Your task to perform on an android device: turn on the 24-hour format for clock Image 0: 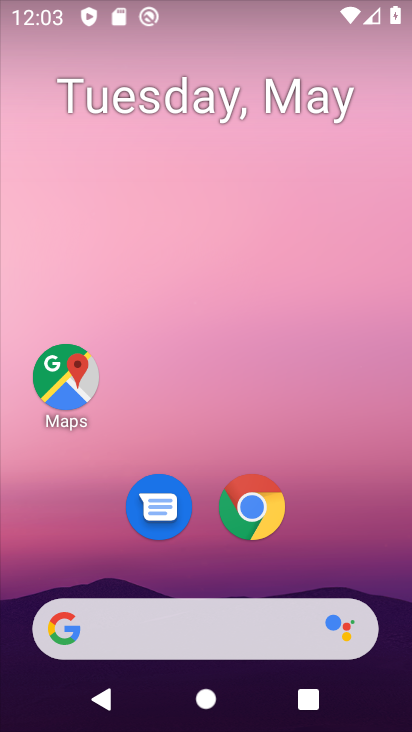
Step 0: drag from (196, 587) to (170, 116)
Your task to perform on an android device: turn on the 24-hour format for clock Image 1: 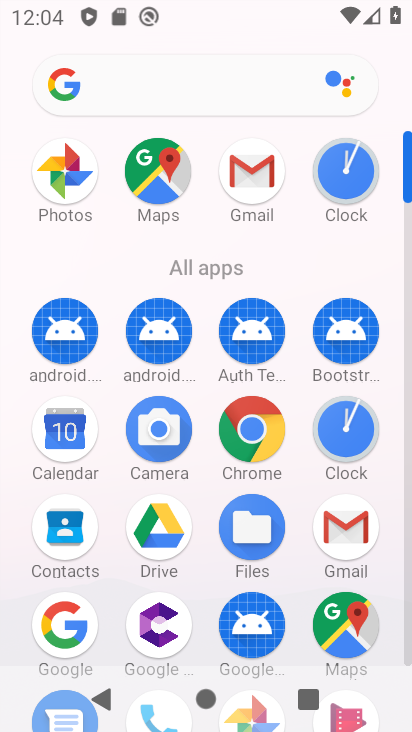
Step 1: drag from (115, 639) to (121, 333)
Your task to perform on an android device: turn on the 24-hour format for clock Image 2: 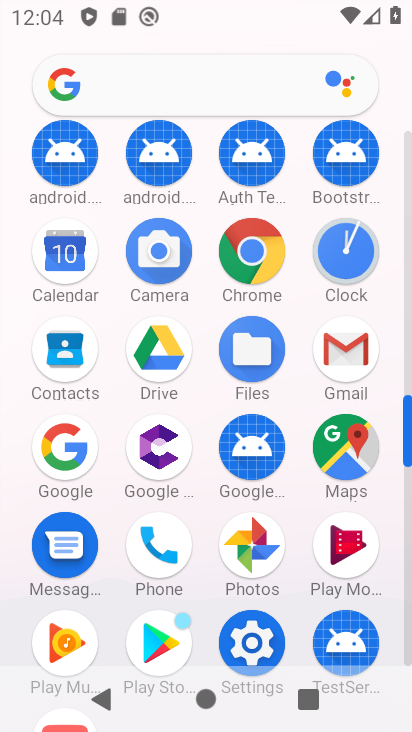
Step 2: click (249, 650)
Your task to perform on an android device: turn on the 24-hour format for clock Image 3: 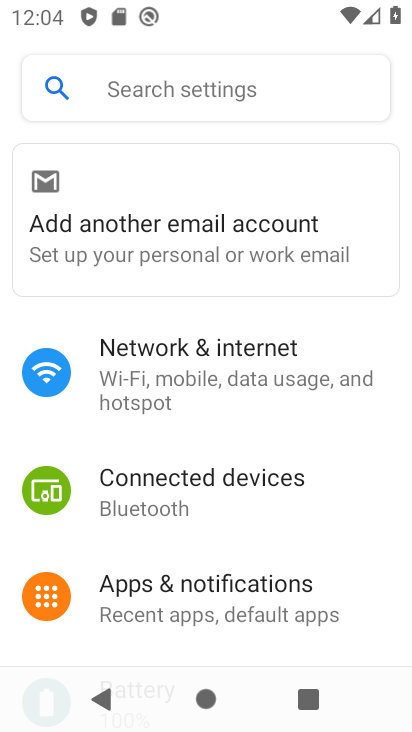
Step 3: press home button
Your task to perform on an android device: turn on the 24-hour format for clock Image 4: 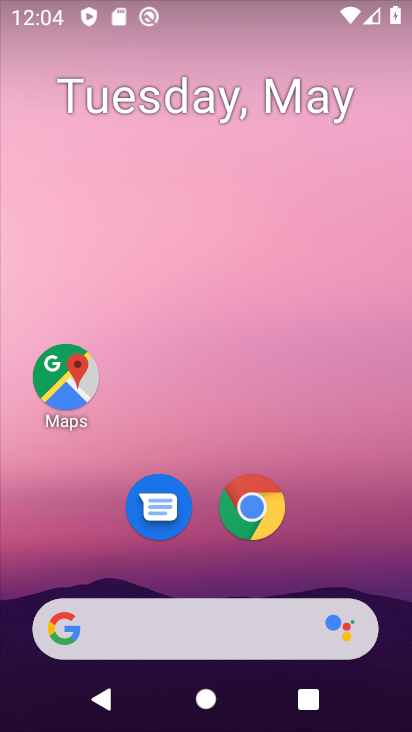
Step 4: drag from (174, 586) to (174, 286)
Your task to perform on an android device: turn on the 24-hour format for clock Image 5: 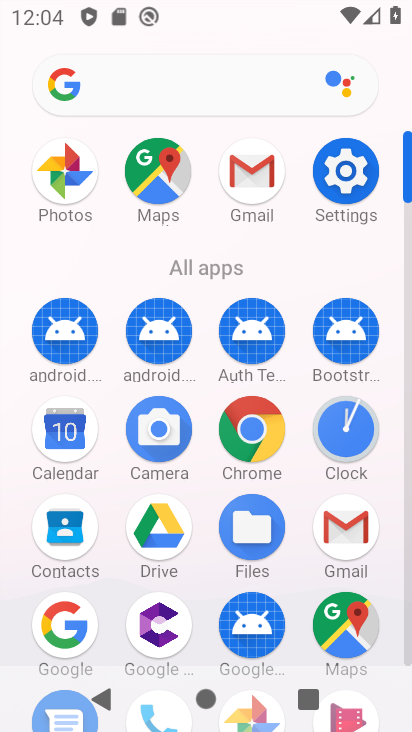
Step 5: click (346, 436)
Your task to perform on an android device: turn on the 24-hour format for clock Image 6: 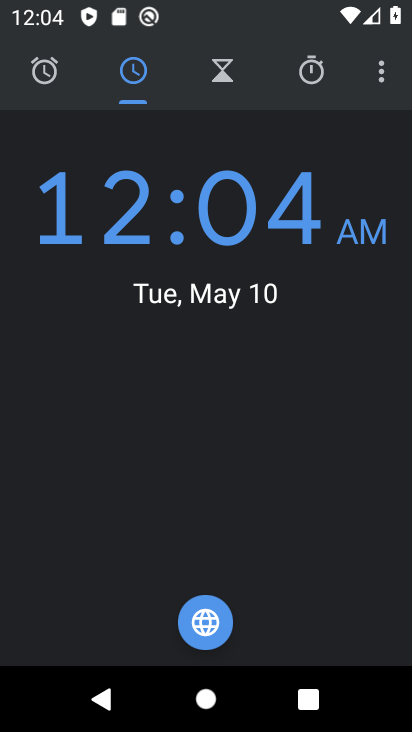
Step 6: click (375, 69)
Your task to perform on an android device: turn on the 24-hour format for clock Image 7: 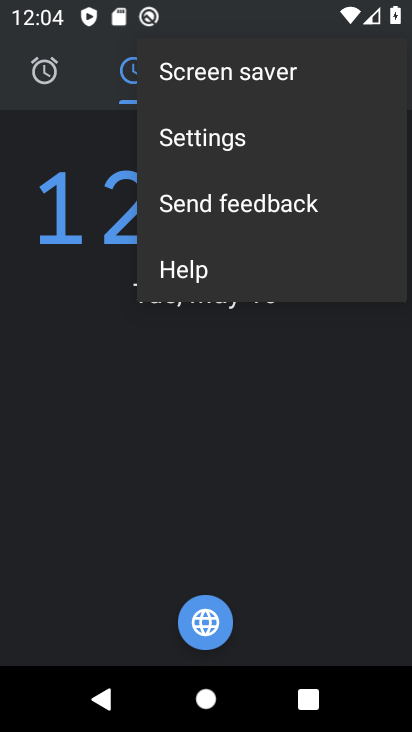
Step 7: click (223, 144)
Your task to perform on an android device: turn on the 24-hour format for clock Image 8: 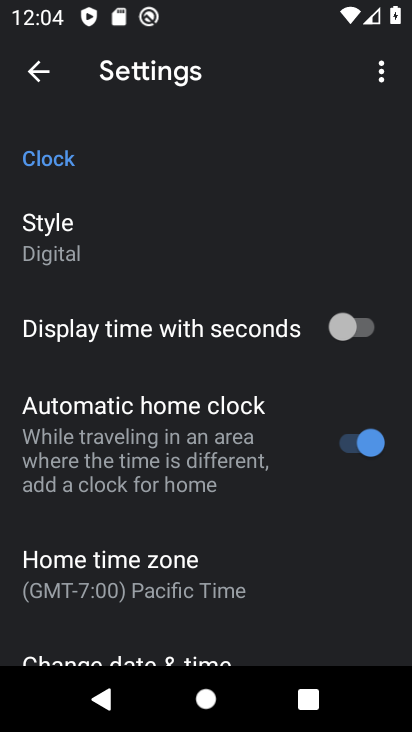
Step 8: drag from (104, 595) to (76, 302)
Your task to perform on an android device: turn on the 24-hour format for clock Image 9: 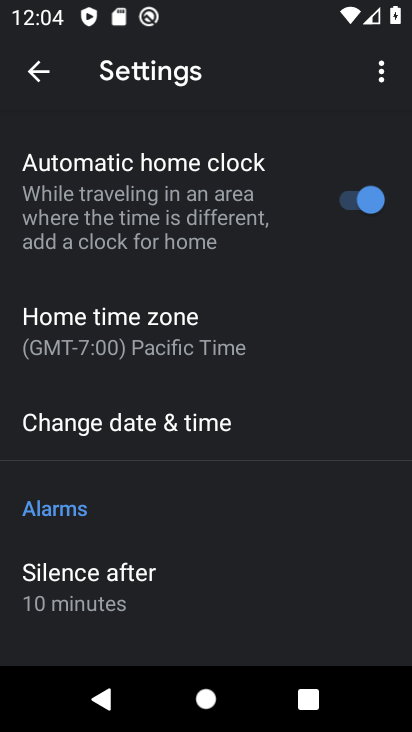
Step 9: click (91, 426)
Your task to perform on an android device: turn on the 24-hour format for clock Image 10: 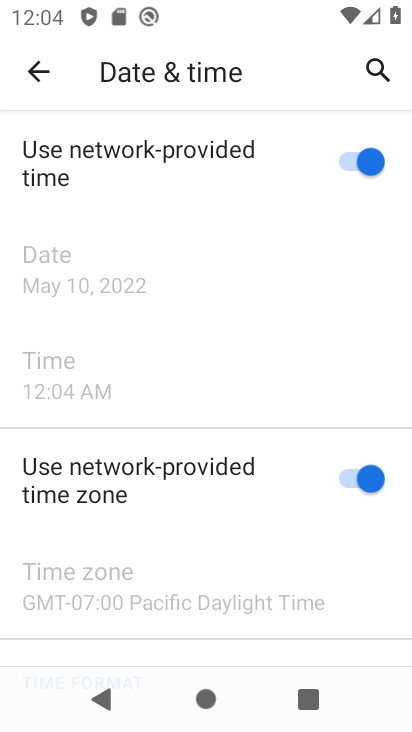
Step 10: drag from (147, 602) to (93, 286)
Your task to perform on an android device: turn on the 24-hour format for clock Image 11: 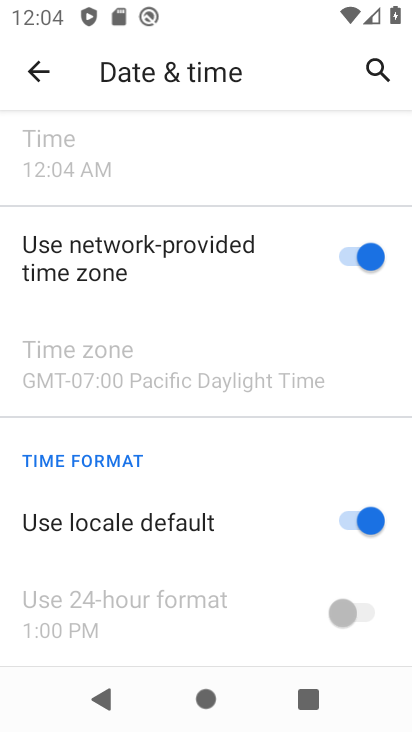
Step 11: click (353, 513)
Your task to perform on an android device: turn on the 24-hour format for clock Image 12: 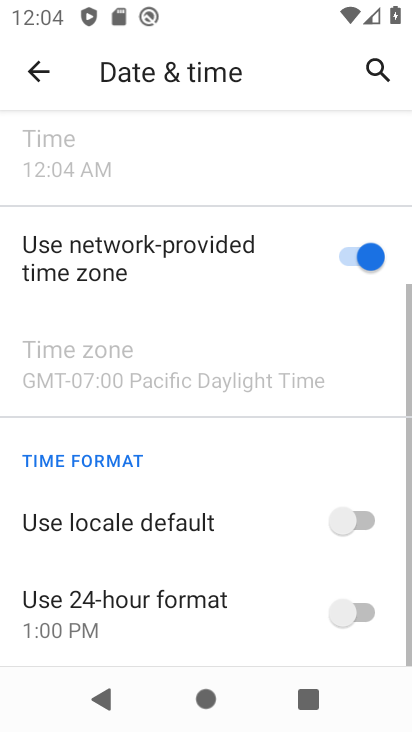
Step 12: click (364, 610)
Your task to perform on an android device: turn on the 24-hour format for clock Image 13: 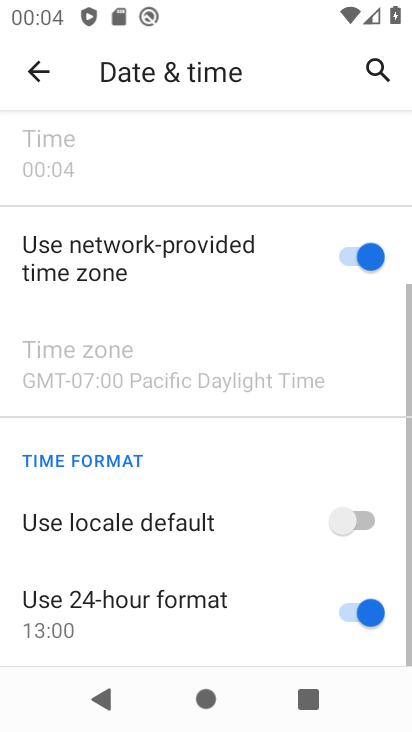
Step 13: task complete